Your task to perform on an android device: Is it going to rain today? Image 0: 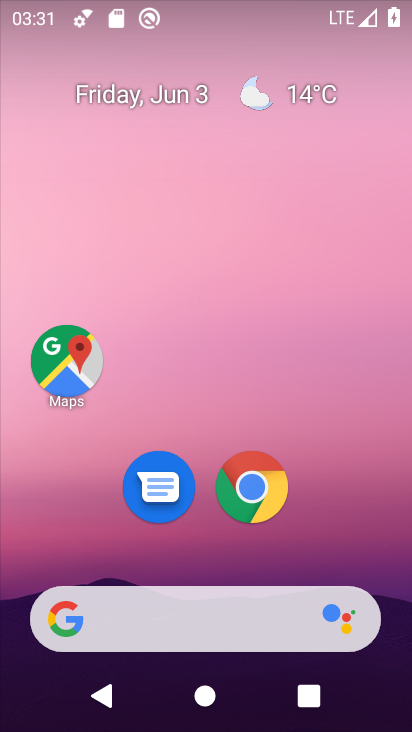
Step 0: press home button
Your task to perform on an android device: Is it going to rain today? Image 1: 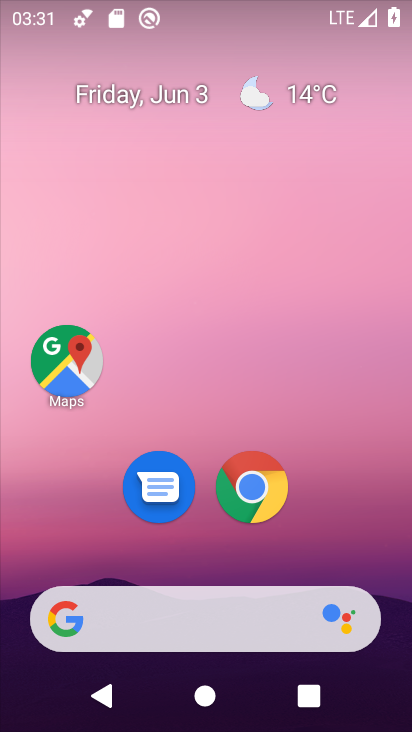
Step 1: click (315, 95)
Your task to perform on an android device: Is it going to rain today? Image 2: 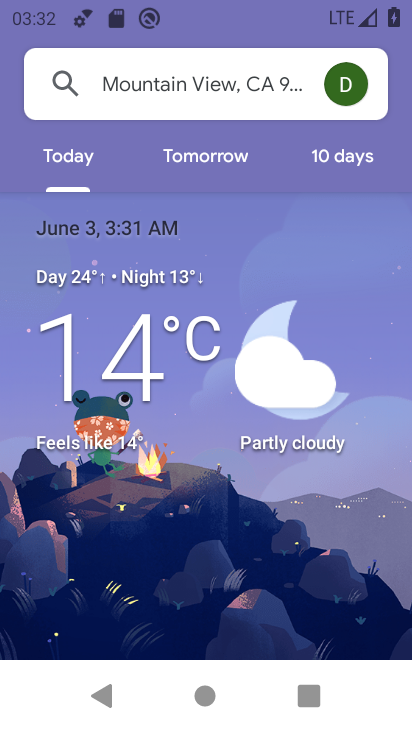
Step 2: task complete